Your task to perform on an android device: Open Yahoo.com Image 0: 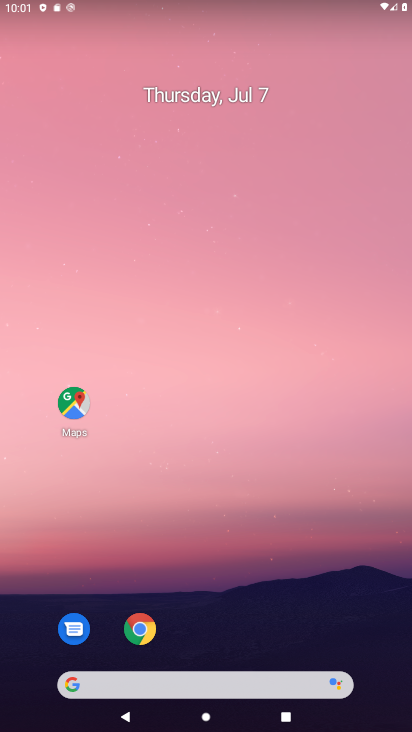
Step 0: click (143, 629)
Your task to perform on an android device: Open Yahoo.com Image 1: 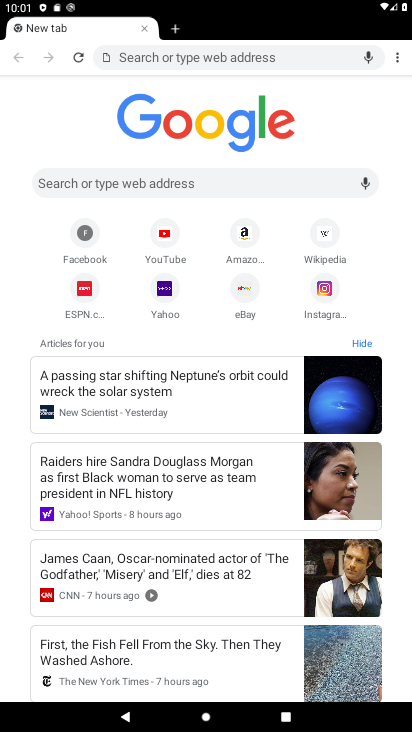
Step 1: click (142, 174)
Your task to perform on an android device: Open Yahoo.com Image 2: 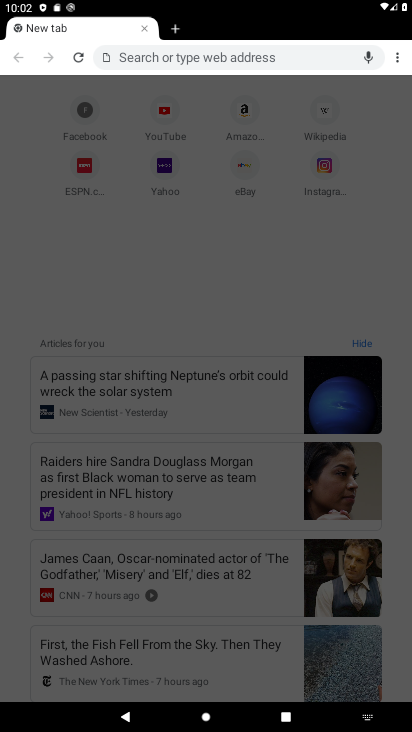
Step 2: type "yahoo.com"
Your task to perform on an android device: Open Yahoo.com Image 3: 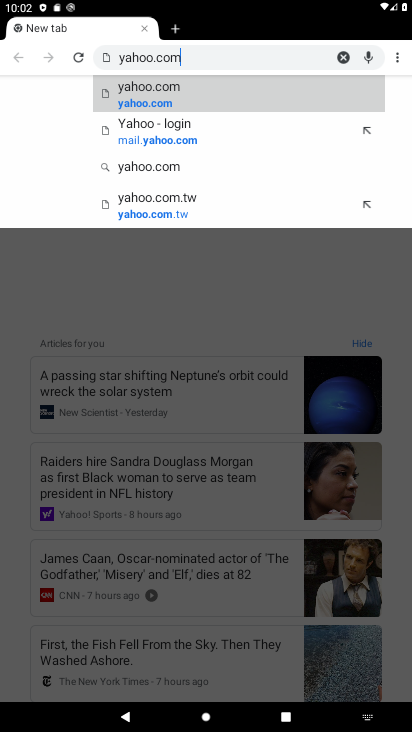
Step 3: click (150, 85)
Your task to perform on an android device: Open Yahoo.com Image 4: 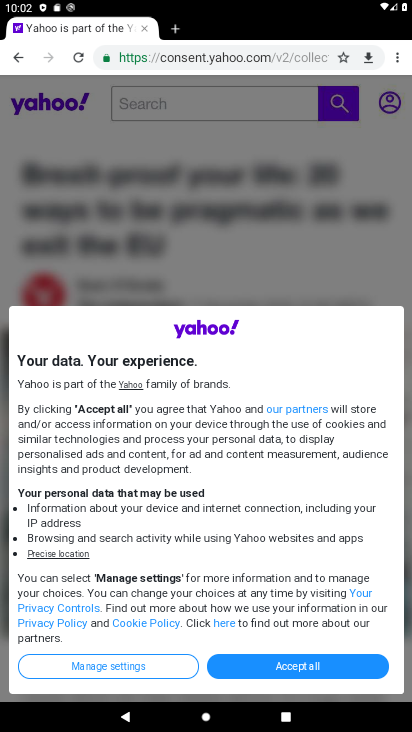
Step 4: click (296, 662)
Your task to perform on an android device: Open Yahoo.com Image 5: 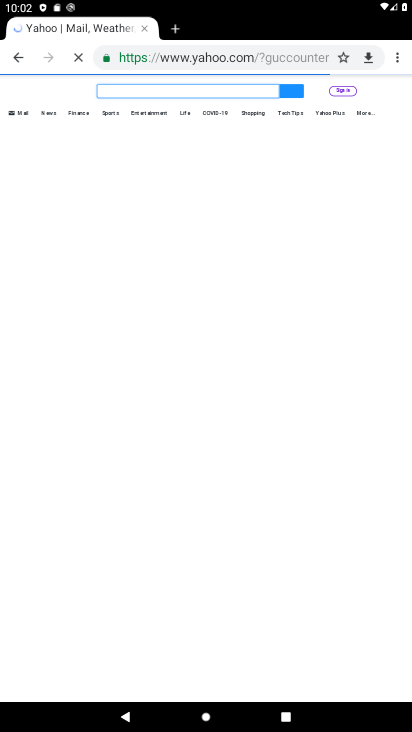
Step 5: task complete